Your task to perform on an android device: Search for "razer blackwidow" on amazon, select the first entry, add it to the cart, then select checkout. Image 0: 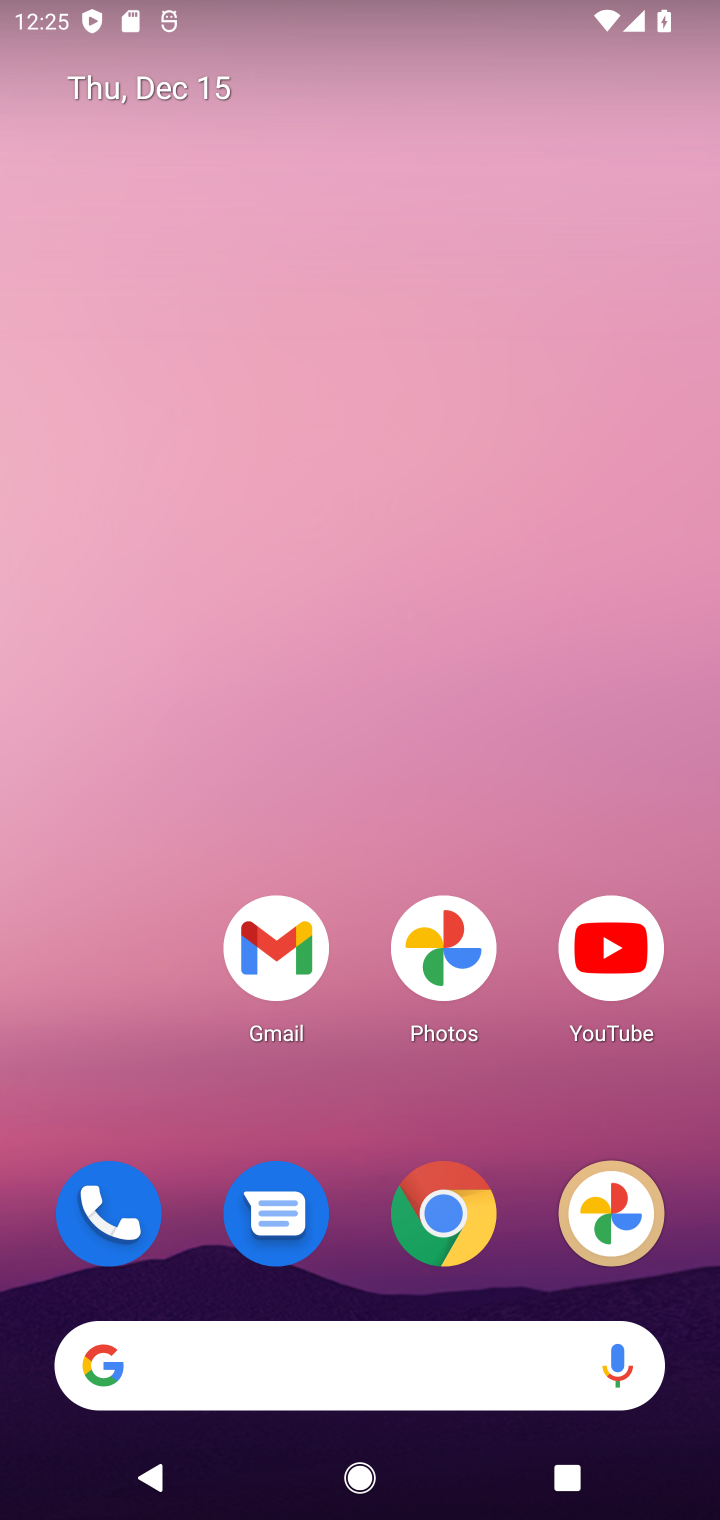
Step 0: click (473, 1217)
Your task to perform on an android device: Search for "razer blackwidow" on amazon, select the first entry, add it to the cart, then select checkout. Image 1: 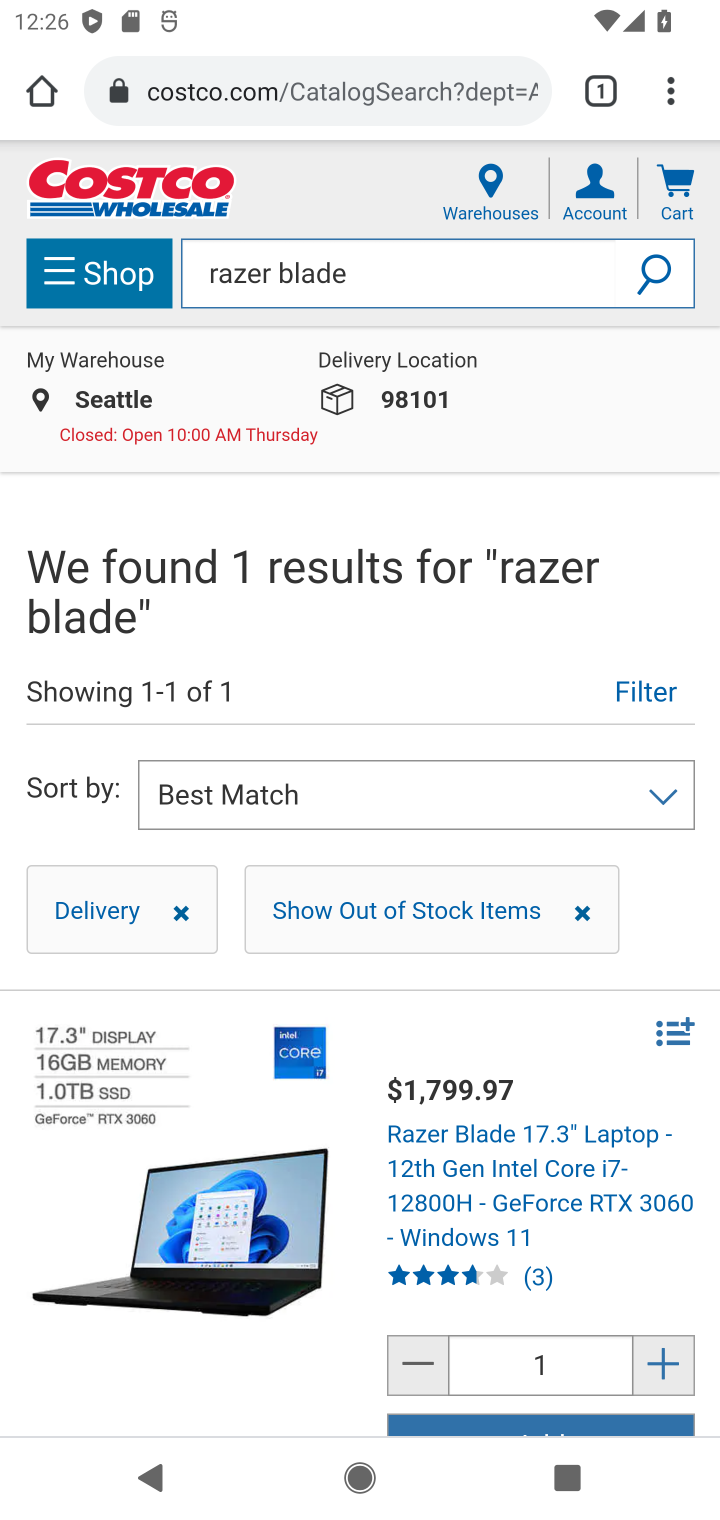
Step 1: click (338, 86)
Your task to perform on an android device: Search for "razer blackwidow" on amazon, select the first entry, add it to the cart, then select checkout. Image 2: 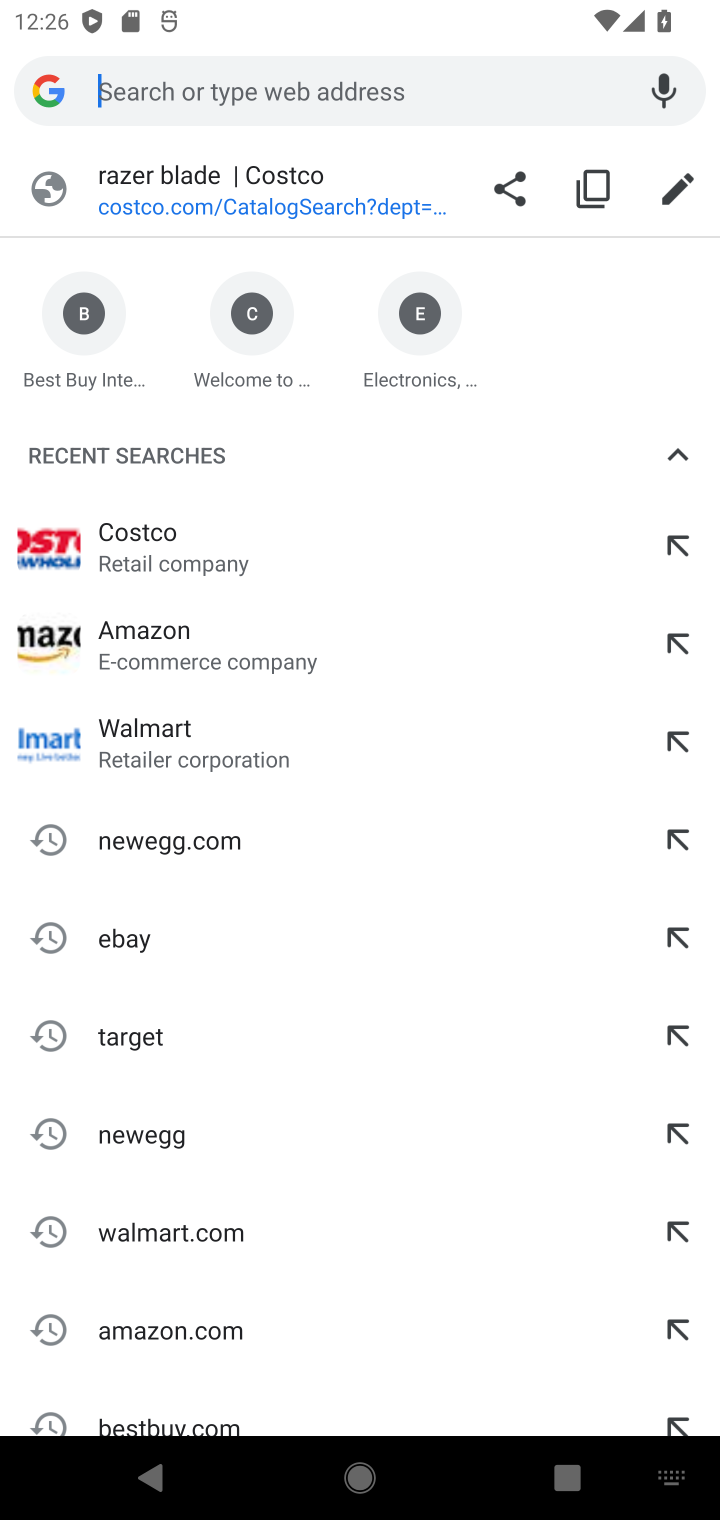
Step 2: type "razer blackwindow"
Your task to perform on an android device: Search for "razer blackwidow" on amazon, select the first entry, add it to the cart, then select checkout. Image 3: 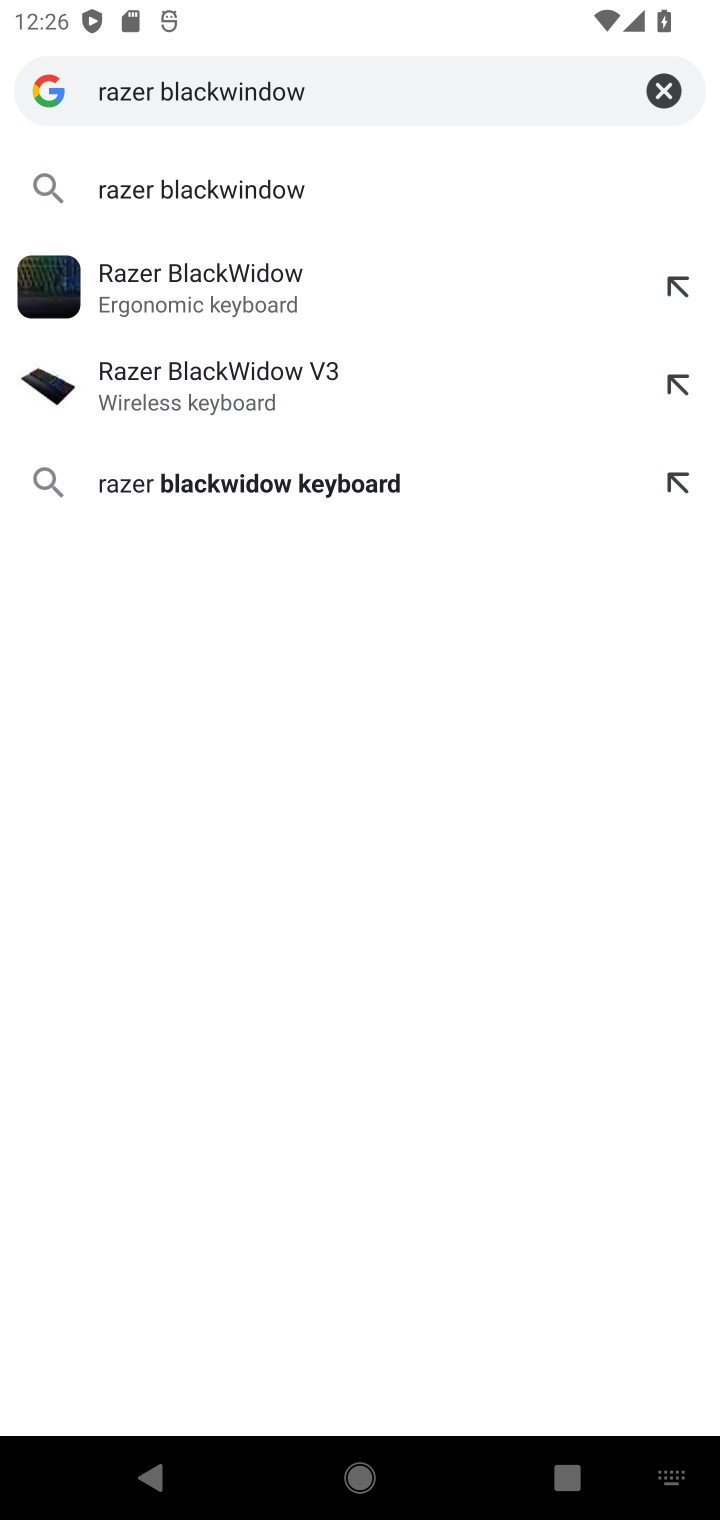
Step 3: click (313, 282)
Your task to perform on an android device: Search for "razer blackwidow" on amazon, select the first entry, add it to the cart, then select checkout. Image 4: 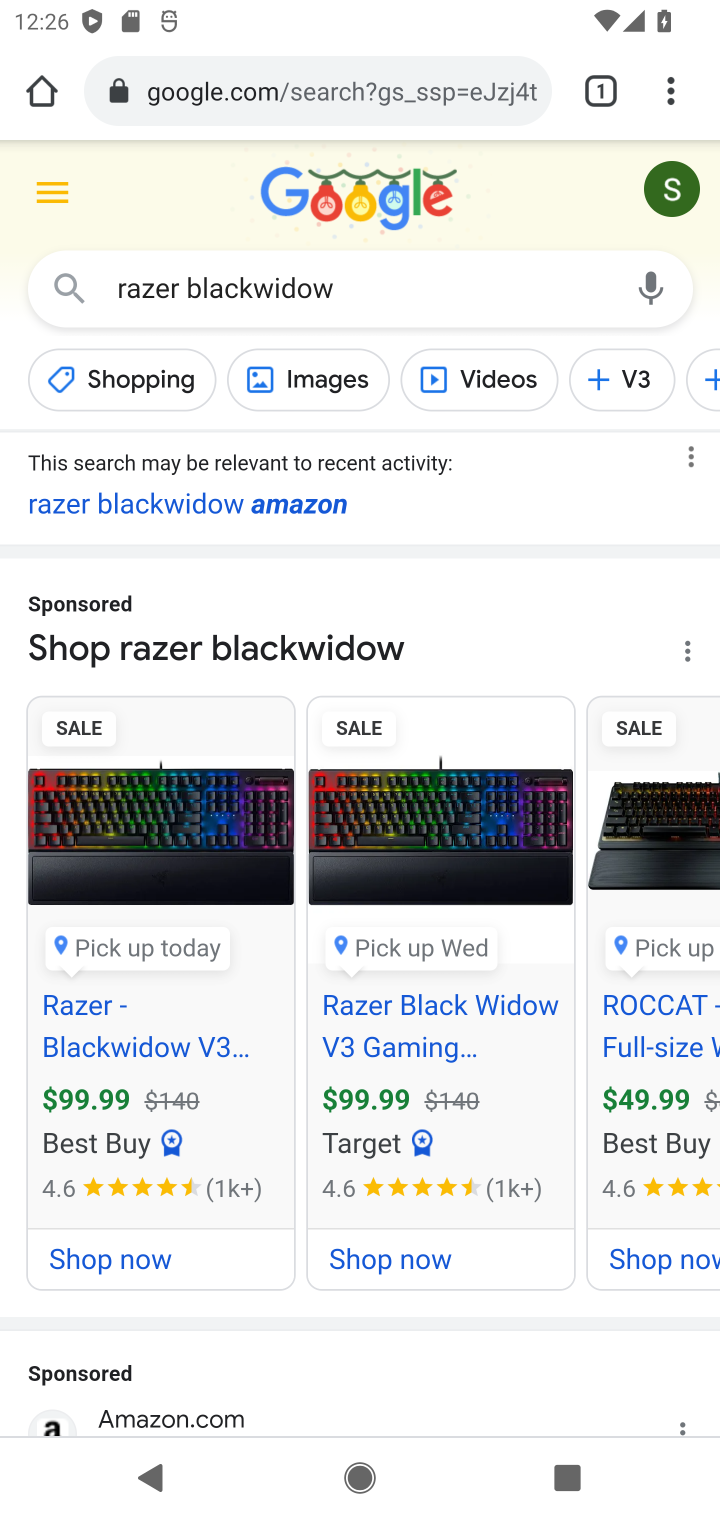
Step 4: drag from (641, 1017) to (99, 1130)
Your task to perform on an android device: Search for "razer blackwidow" on amazon, select the first entry, add it to the cart, then select checkout. Image 5: 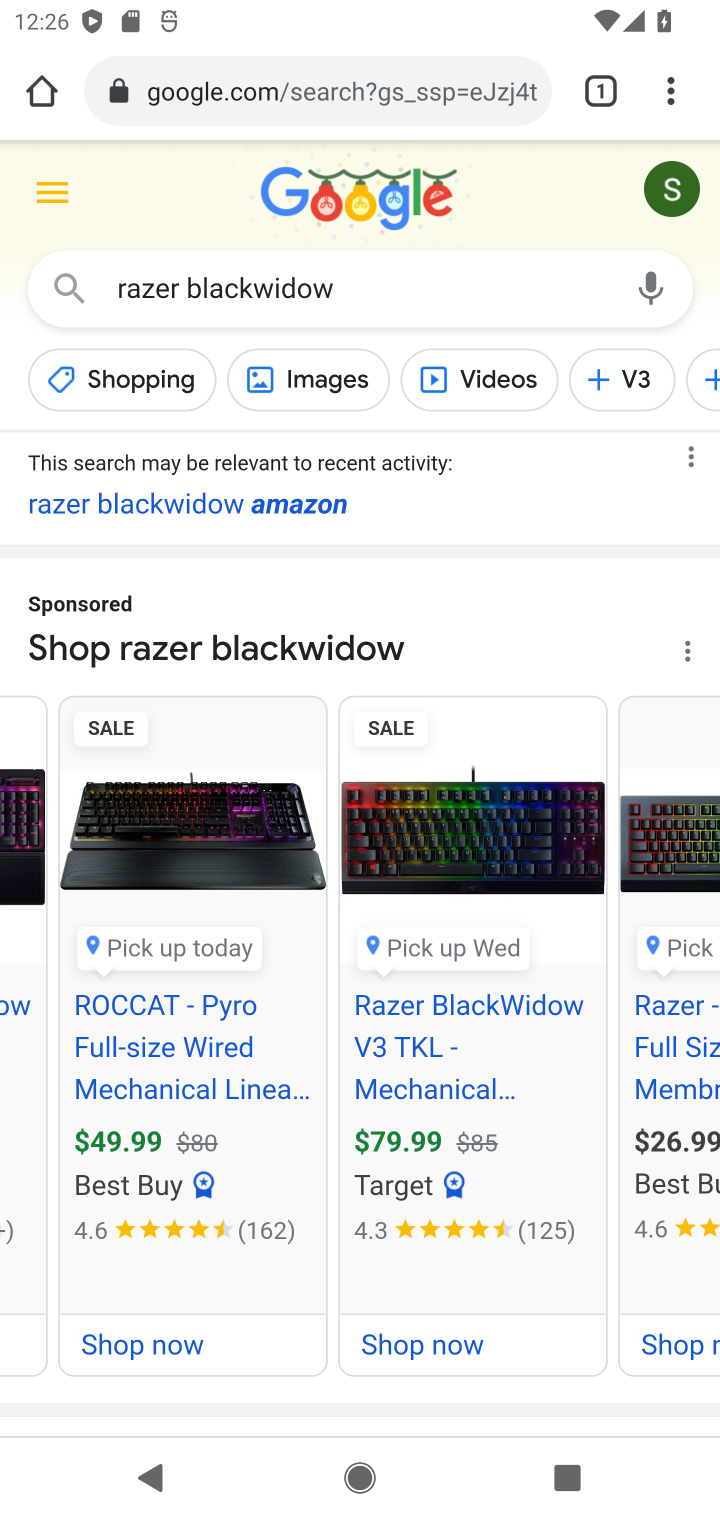
Step 5: drag from (616, 1105) to (31, 1004)
Your task to perform on an android device: Search for "razer blackwidow" on amazon, select the first entry, add it to the cart, then select checkout. Image 6: 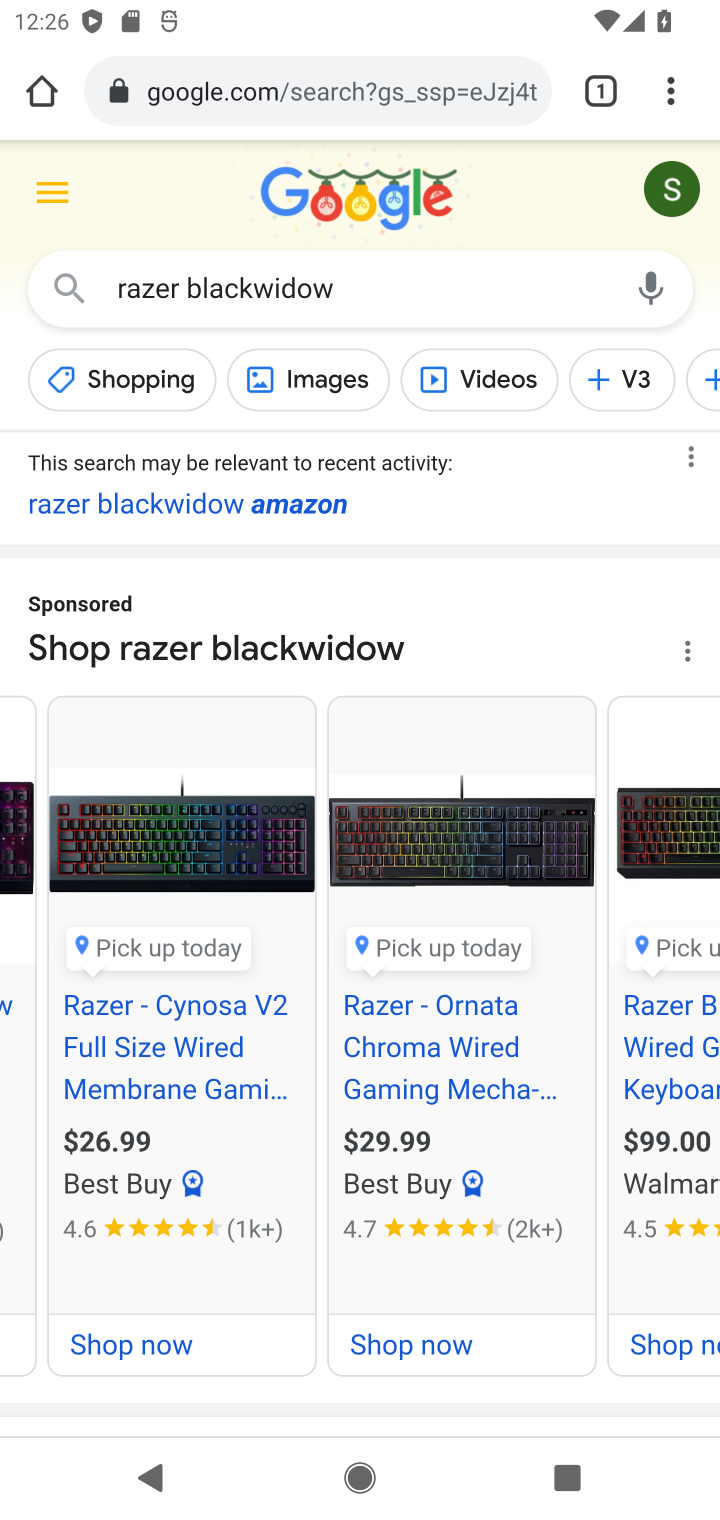
Step 6: drag from (631, 1070) to (18, 1116)
Your task to perform on an android device: Search for "razer blackwidow" on amazon, select the first entry, add it to the cart, then select checkout. Image 7: 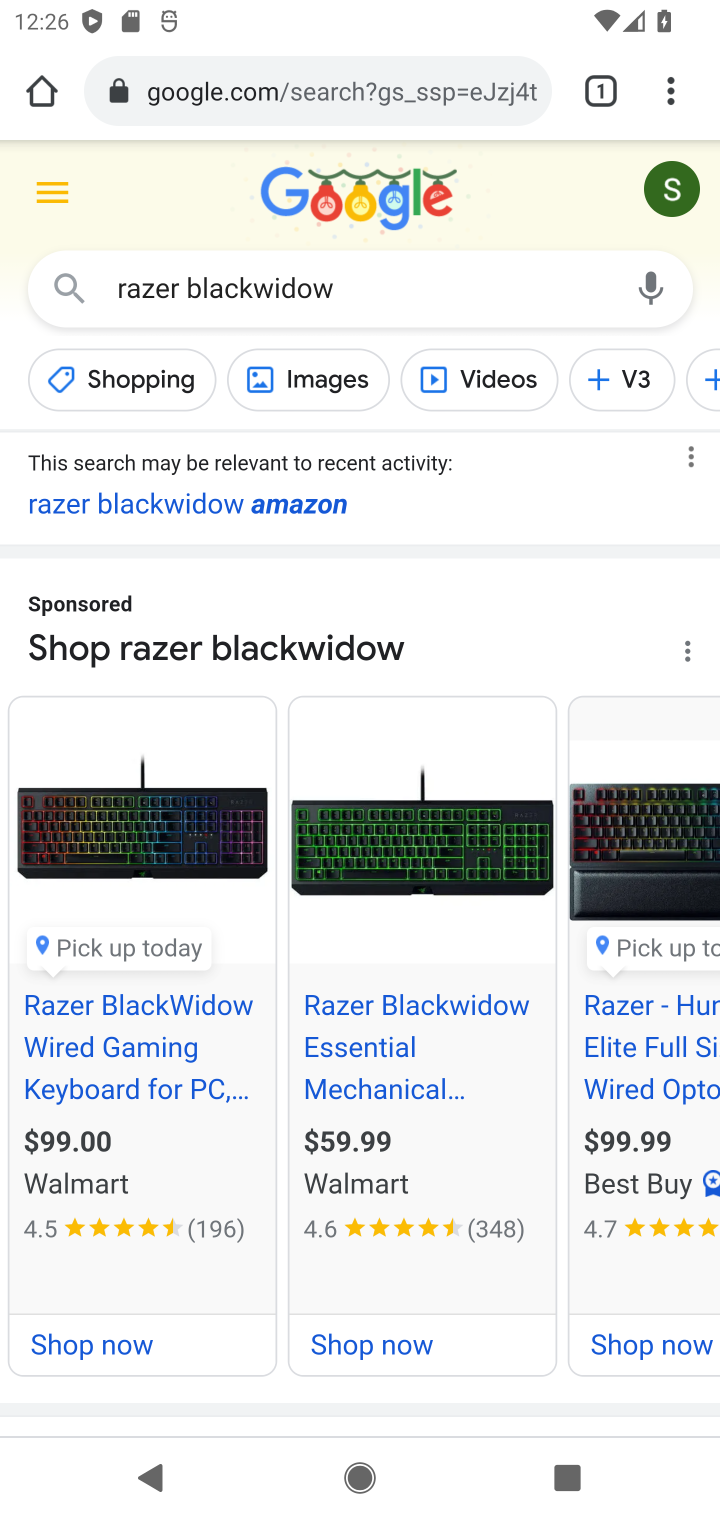
Step 7: drag from (701, 1106) to (3, 1041)
Your task to perform on an android device: Search for "razer blackwidow" on amazon, select the first entry, add it to the cart, then select checkout. Image 8: 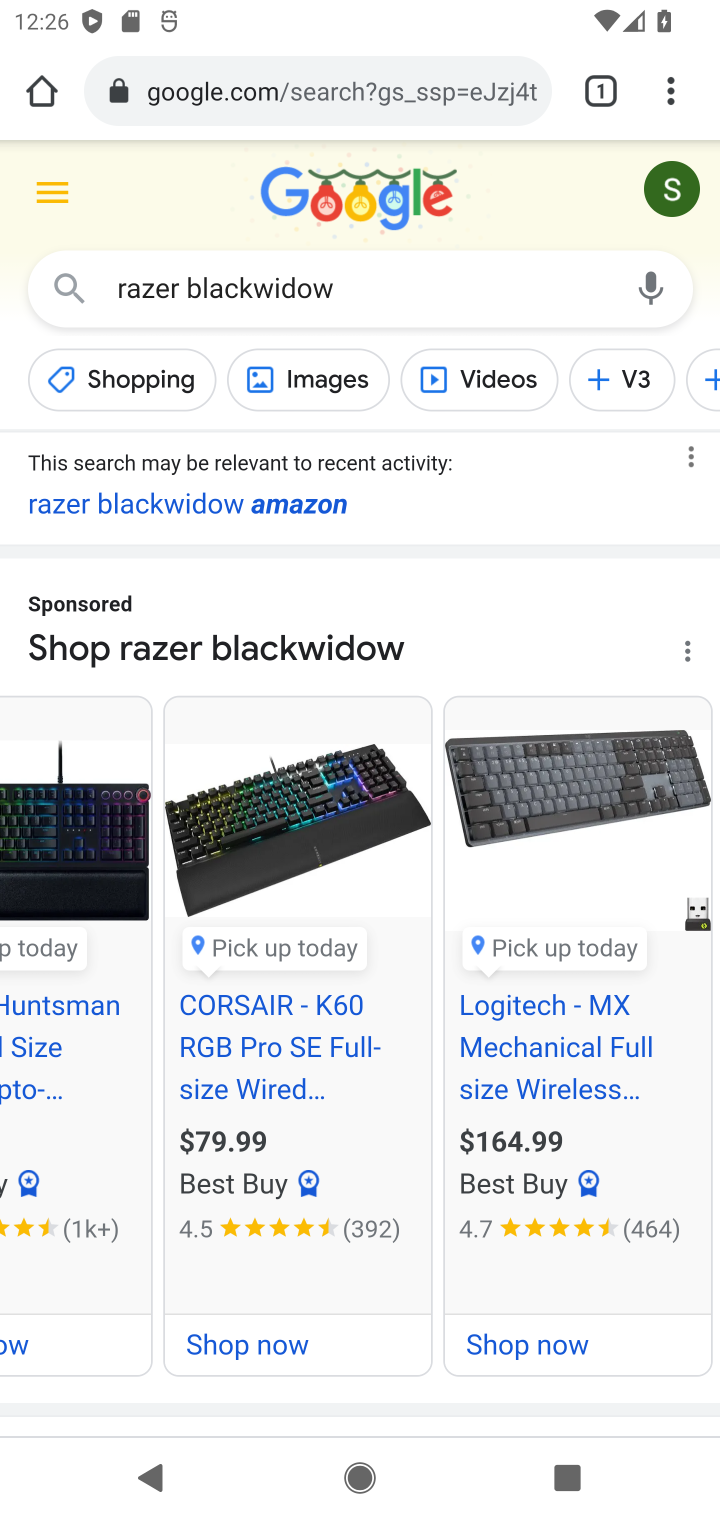
Step 8: click (480, 1038)
Your task to perform on an android device: Search for "razer blackwidow" on amazon, select the first entry, add it to the cart, then select checkout. Image 9: 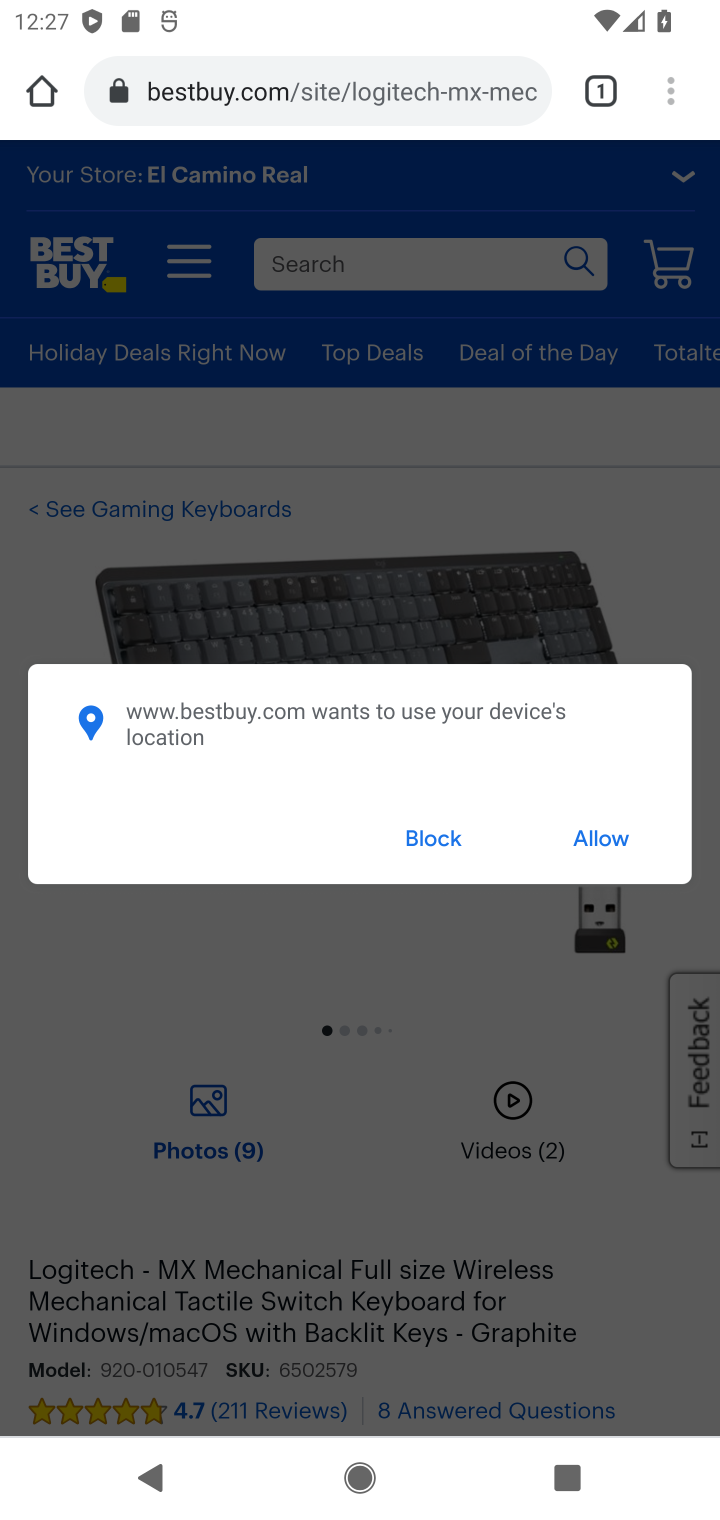
Step 9: press home button
Your task to perform on an android device: Search for "razer blackwidow" on amazon, select the first entry, add it to the cart, then select checkout. Image 10: 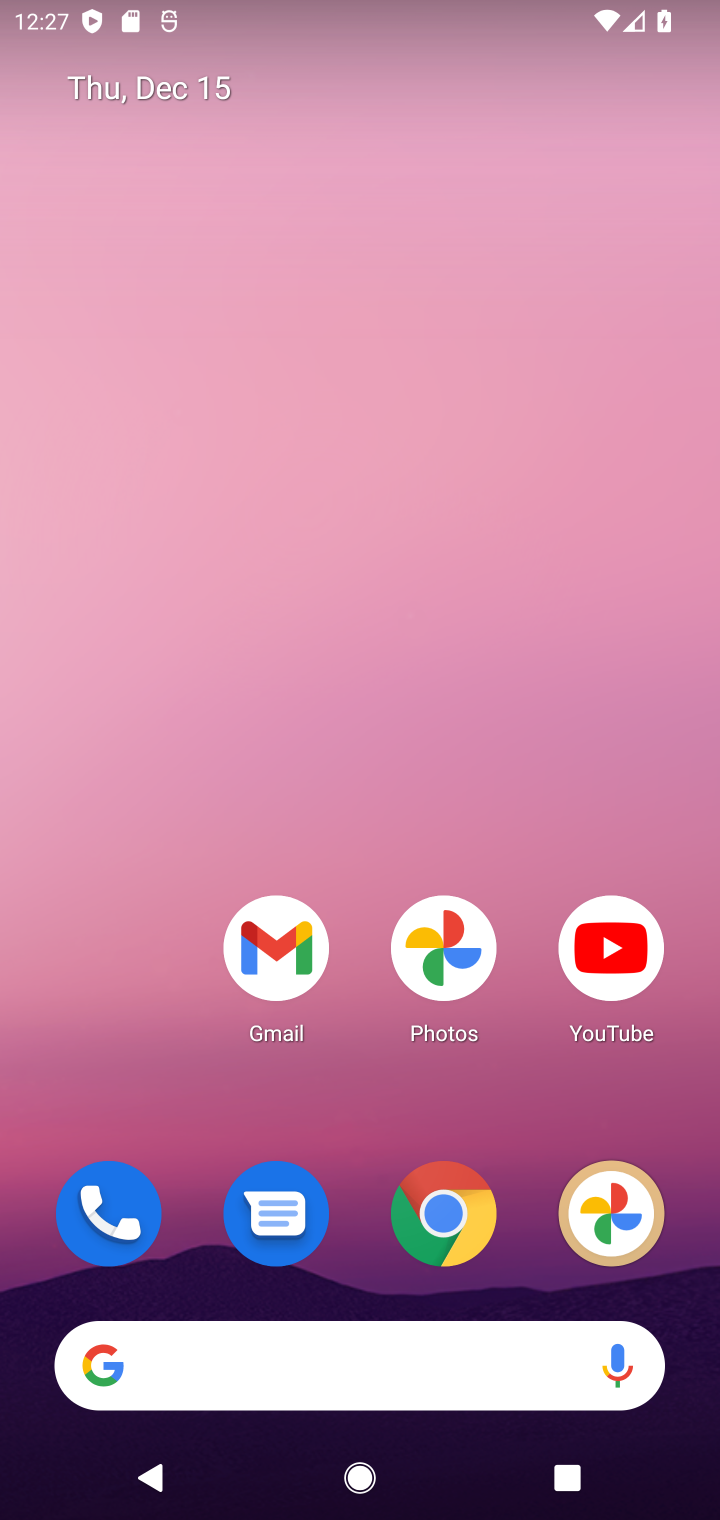
Step 10: click (470, 1251)
Your task to perform on an android device: Search for "razer blackwidow" on amazon, select the first entry, add it to the cart, then select checkout. Image 11: 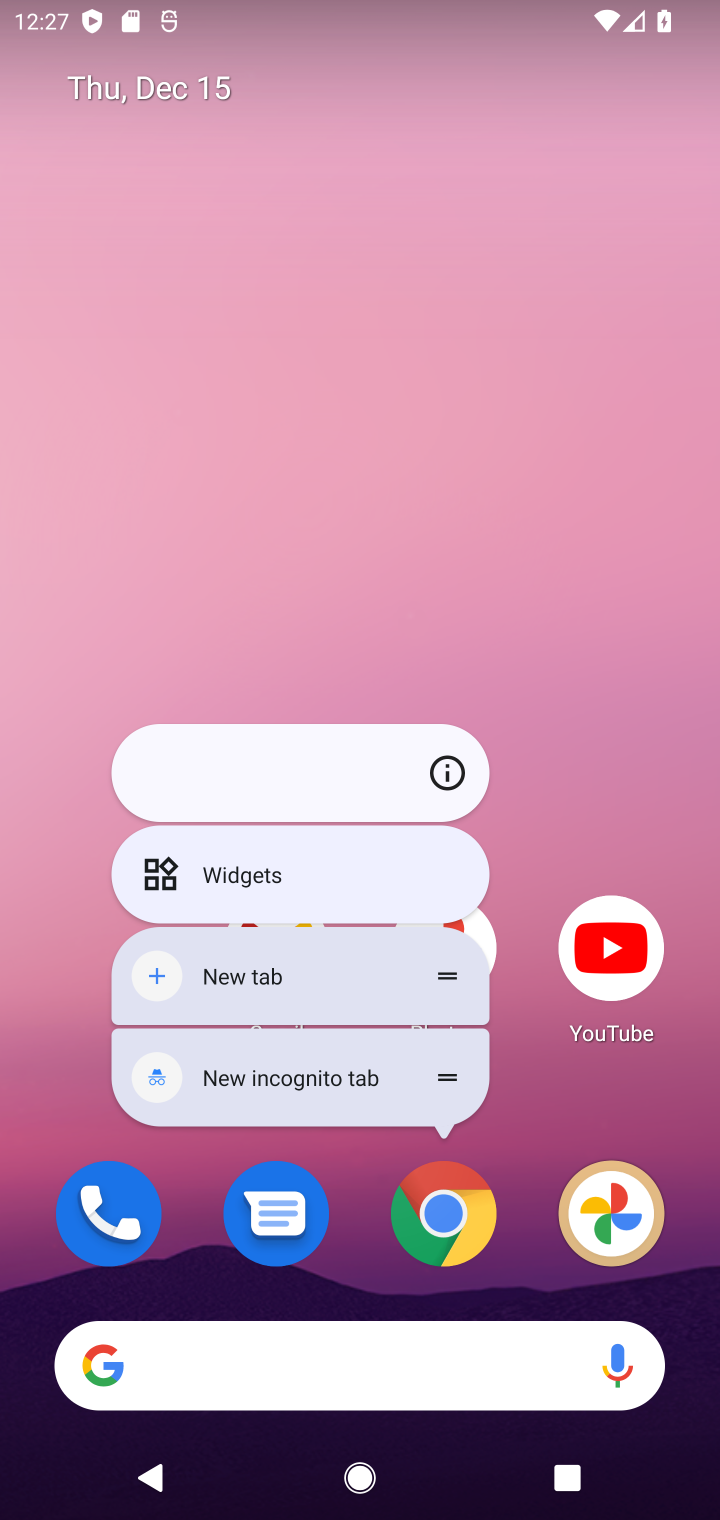
Step 11: click (446, 1238)
Your task to perform on an android device: Search for "razer blackwidow" on amazon, select the first entry, add it to the cart, then select checkout. Image 12: 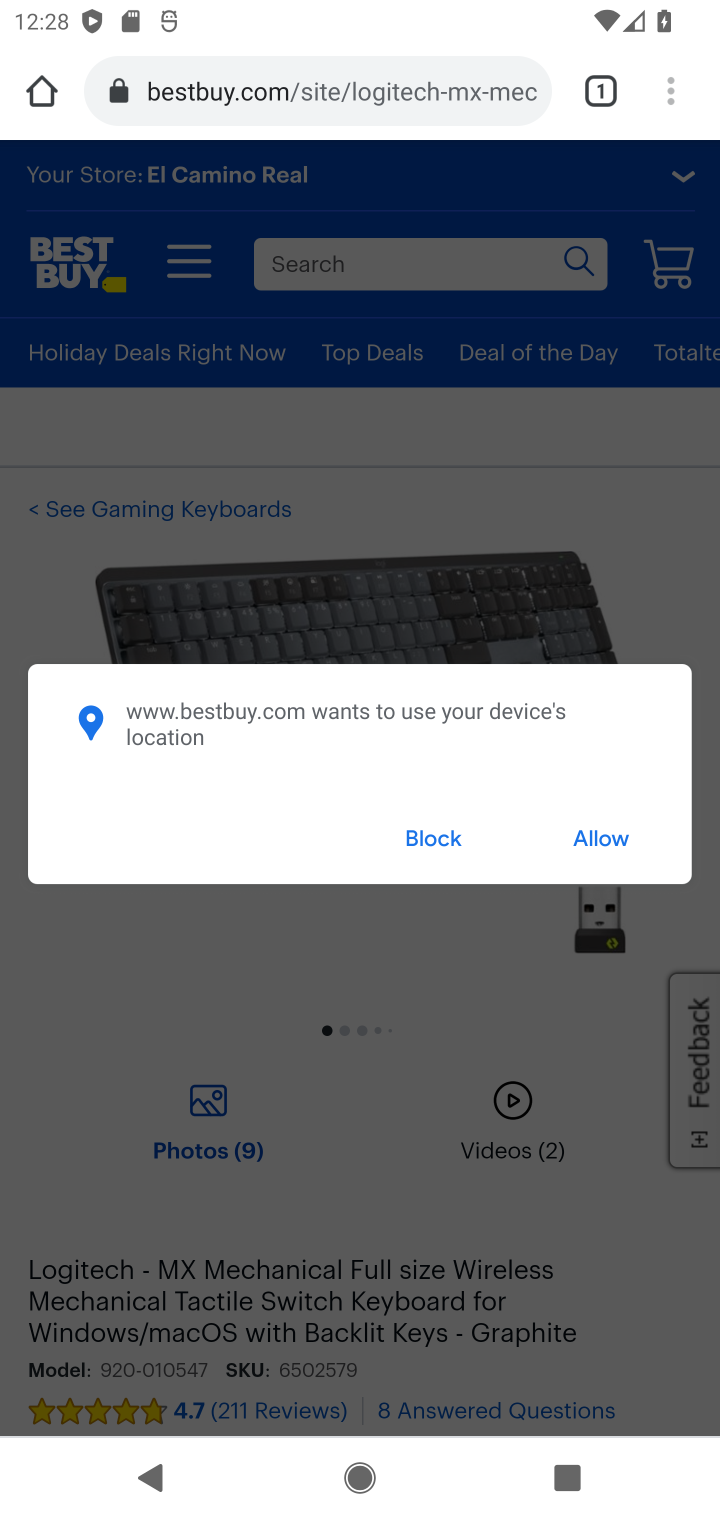
Step 12: click (626, 835)
Your task to perform on an android device: Search for "razer blackwidow" on amazon, select the first entry, add it to the cart, then select checkout. Image 13: 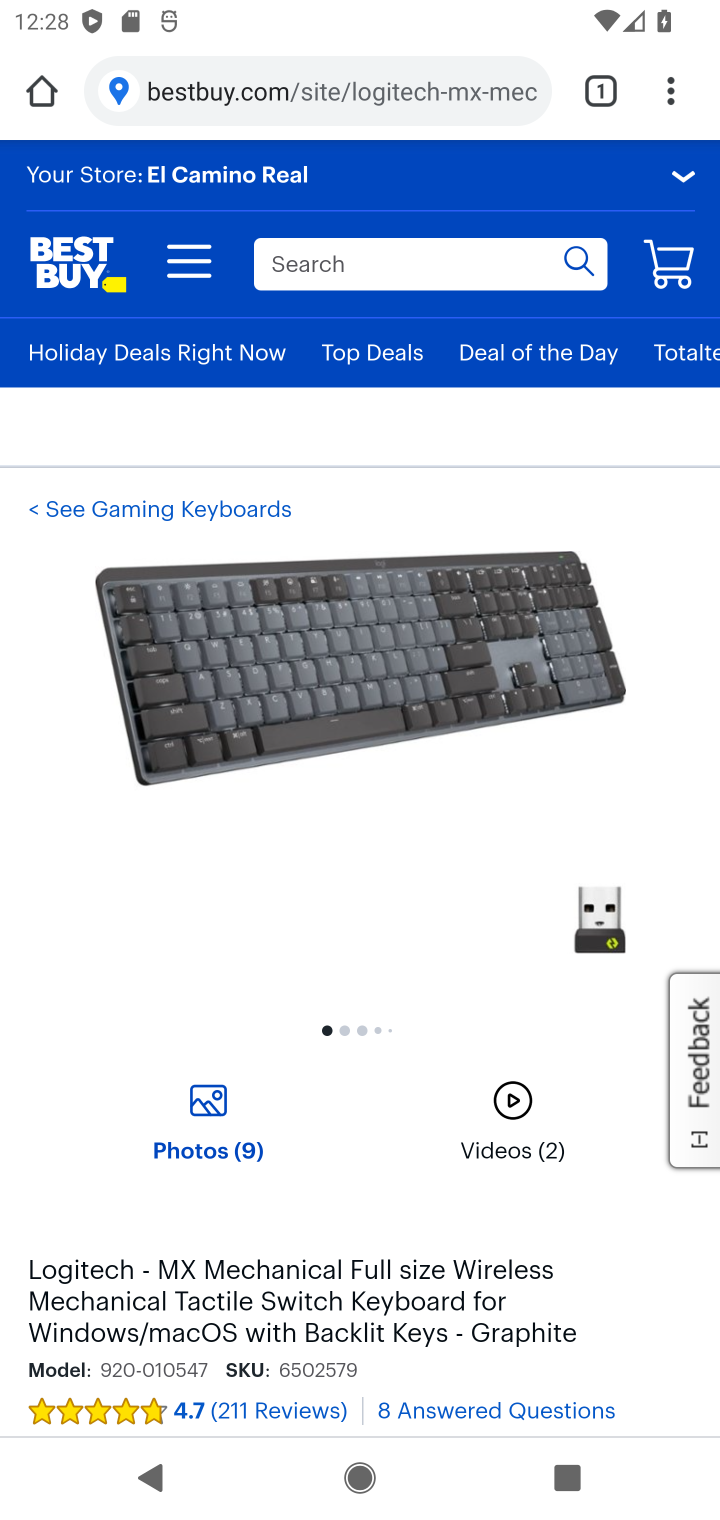
Step 13: task complete